Your task to perform on an android device: turn off notifications in google photos Image 0: 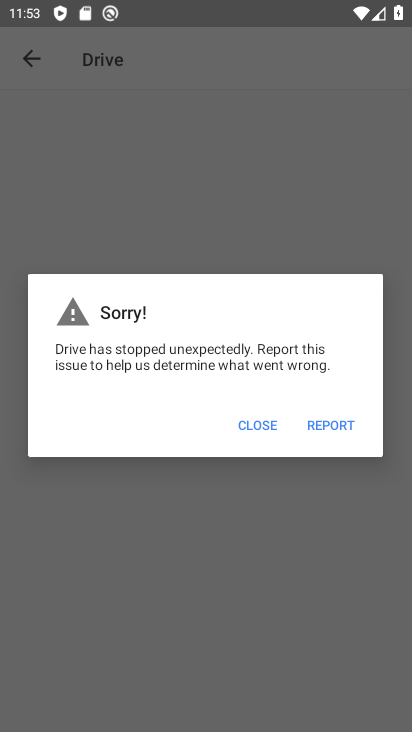
Step 0: press home button
Your task to perform on an android device: turn off notifications in google photos Image 1: 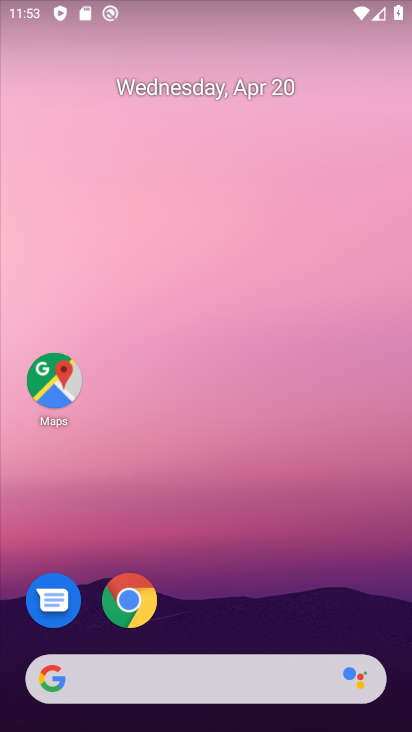
Step 1: drag from (249, 546) to (282, 96)
Your task to perform on an android device: turn off notifications in google photos Image 2: 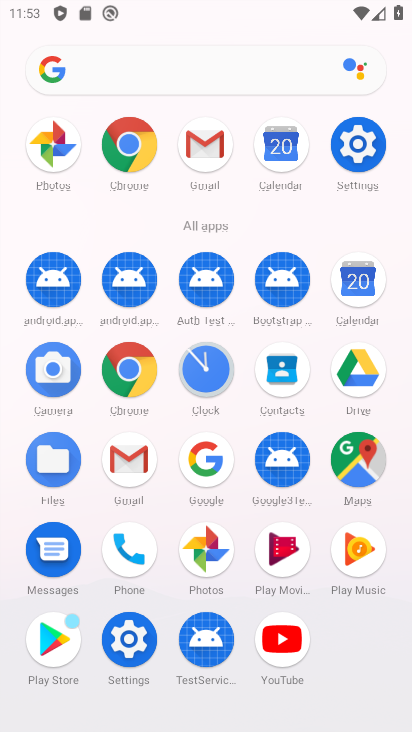
Step 2: click (56, 142)
Your task to perform on an android device: turn off notifications in google photos Image 3: 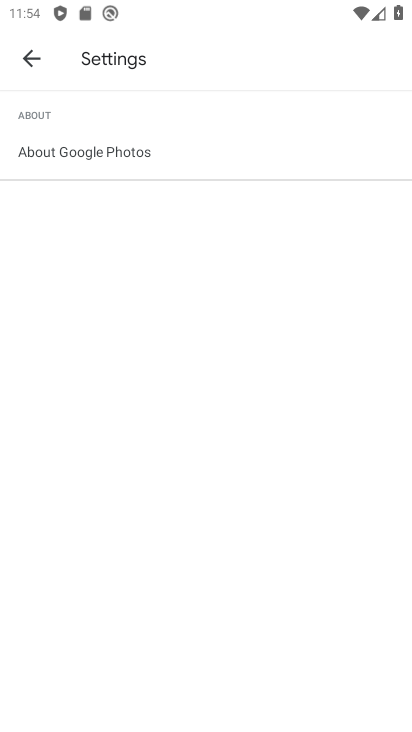
Step 3: click (56, 142)
Your task to perform on an android device: turn off notifications in google photos Image 4: 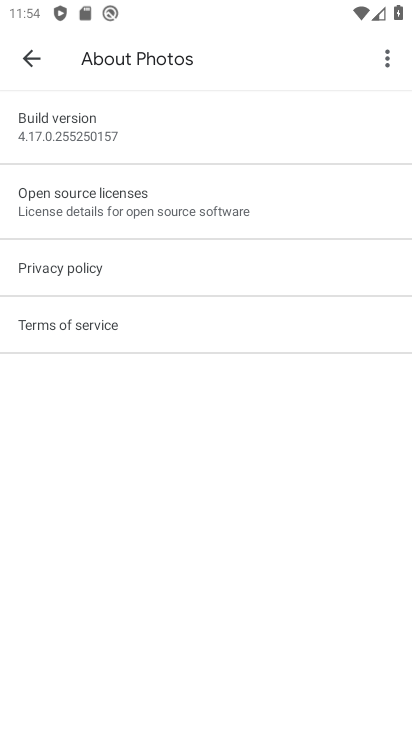
Step 4: click (32, 51)
Your task to perform on an android device: turn off notifications in google photos Image 5: 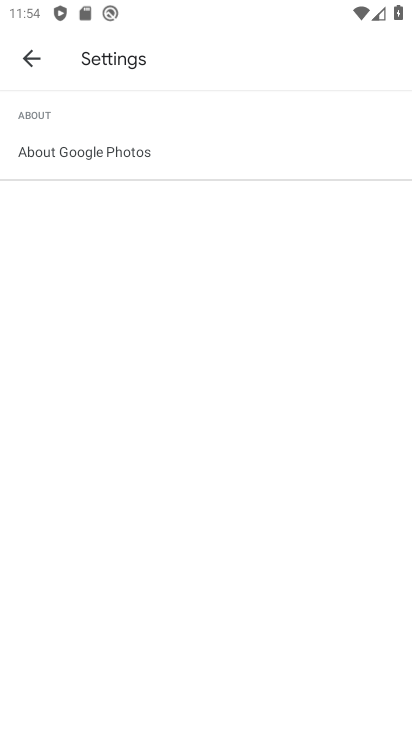
Step 5: click (32, 51)
Your task to perform on an android device: turn off notifications in google photos Image 6: 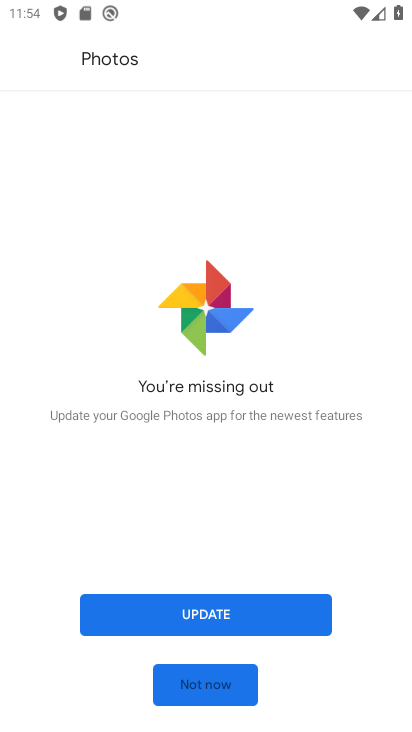
Step 6: click (229, 684)
Your task to perform on an android device: turn off notifications in google photos Image 7: 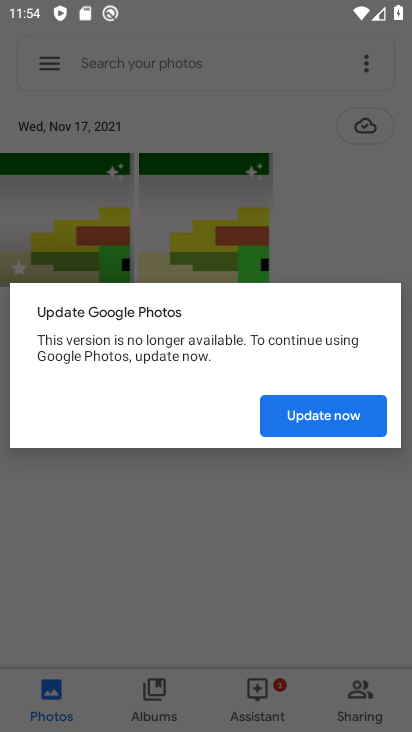
Step 7: click (344, 416)
Your task to perform on an android device: turn off notifications in google photos Image 8: 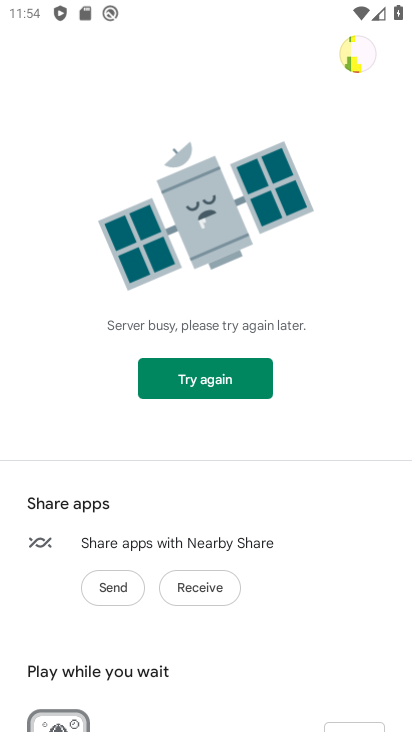
Step 8: press back button
Your task to perform on an android device: turn off notifications in google photos Image 9: 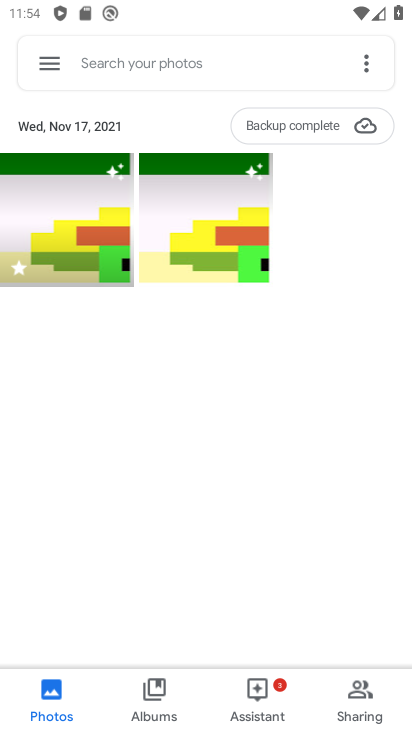
Step 9: click (45, 58)
Your task to perform on an android device: turn off notifications in google photos Image 10: 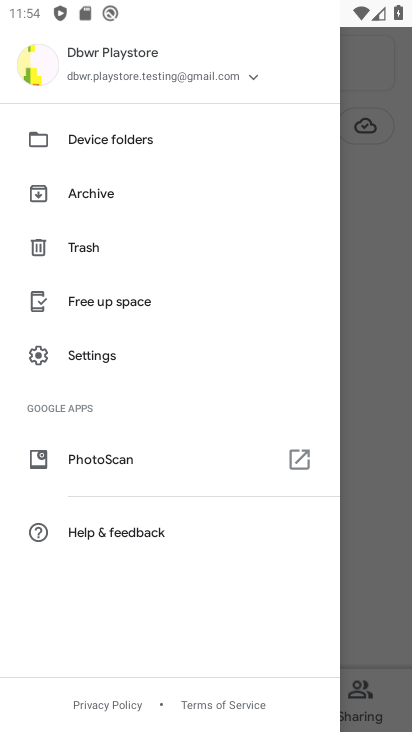
Step 10: click (129, 354)
Your task to perform on an android device: turn off notifications in google photos Image 11: 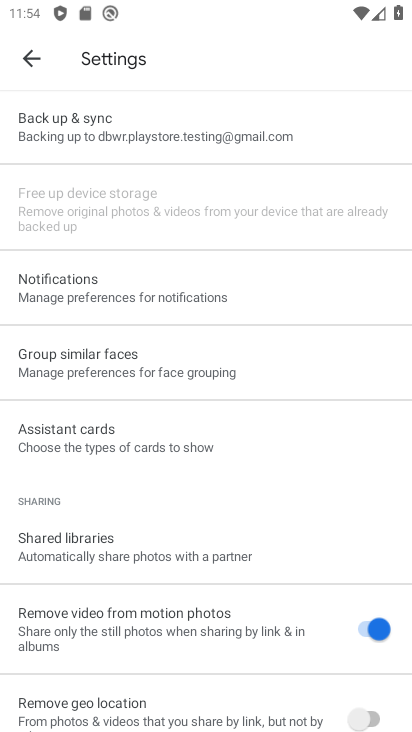
Step 11: click (146, 296)
Your task to perform on an android device: turn off notifications in google photos Image 12: 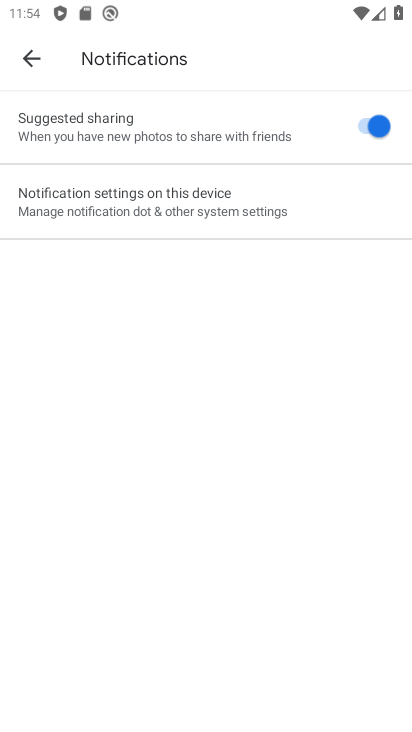
Step 12: click (361, 117)
Your task to perform on an android device: turn off notifications in google photos Image 13: 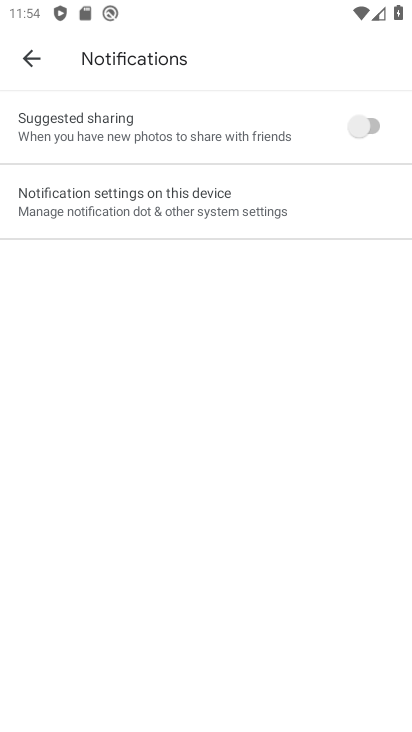
Step 13: task complete